Your task to perform on an android device: turn on showing notifications on the lock screen Image 0: 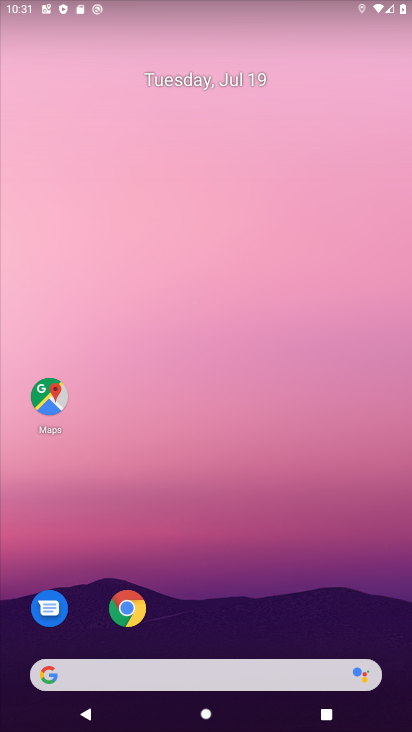
Step 0: drag from (218, 644) to (198, 10)
Your task to perform on an android device: turn on showing notifications on the lock screen Image 1: 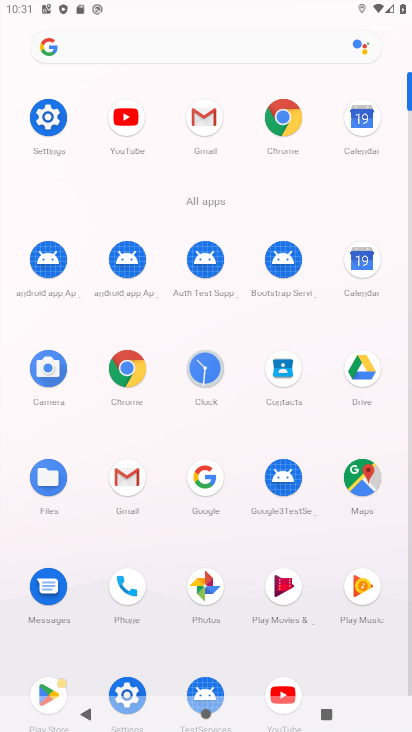
Step 1: click (62, 108)
Your task to perform on an android device: turn on showing notifications on the lock screen Image 2: 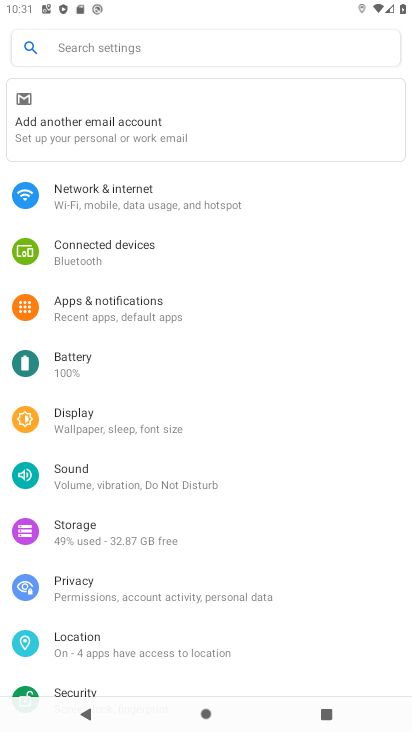
Step 2: click (149, 297)
Your task to perform on an android device: turn on showing notifications on the lock screen Image 3: 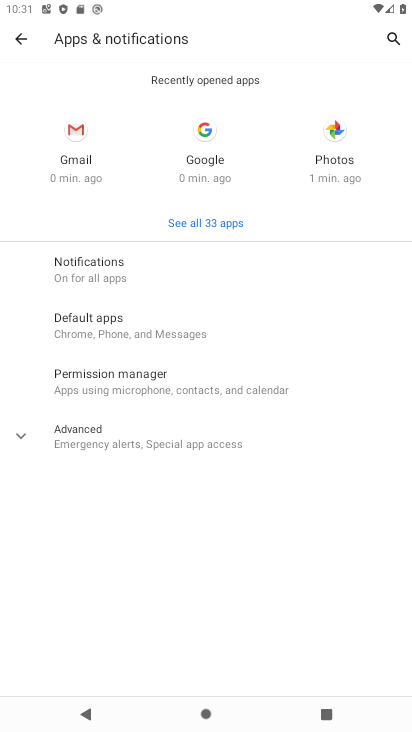
Step 3: click (64, 260)
Your task to perform on an android device: turn on showing notifications on the lock screen Image 4: 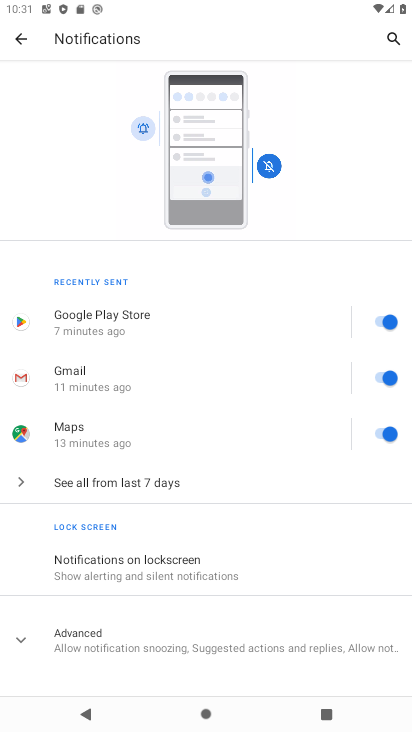
Step 4: click (187, 568)
Your task to perform on an android device: turn on showing notifications on the lock screen Image 5: 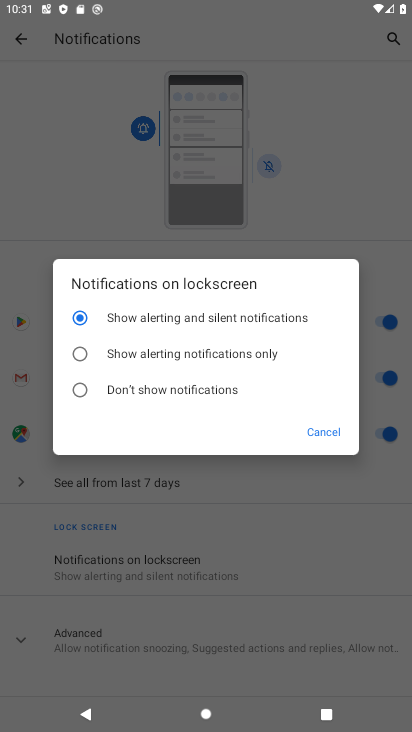
Step 5: click (224, 321)
Your task to perform on an android device: turn on showing notifications on the lock screen Image 6: 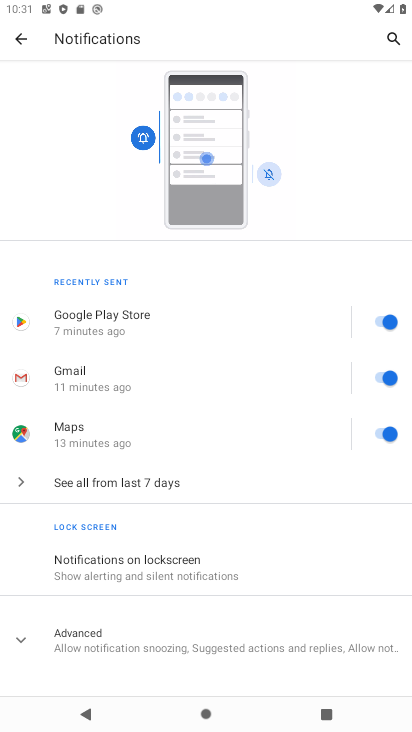
Step 6: task complete